Your task to perform on an android device: turn off translation in the chrome app Image 0: 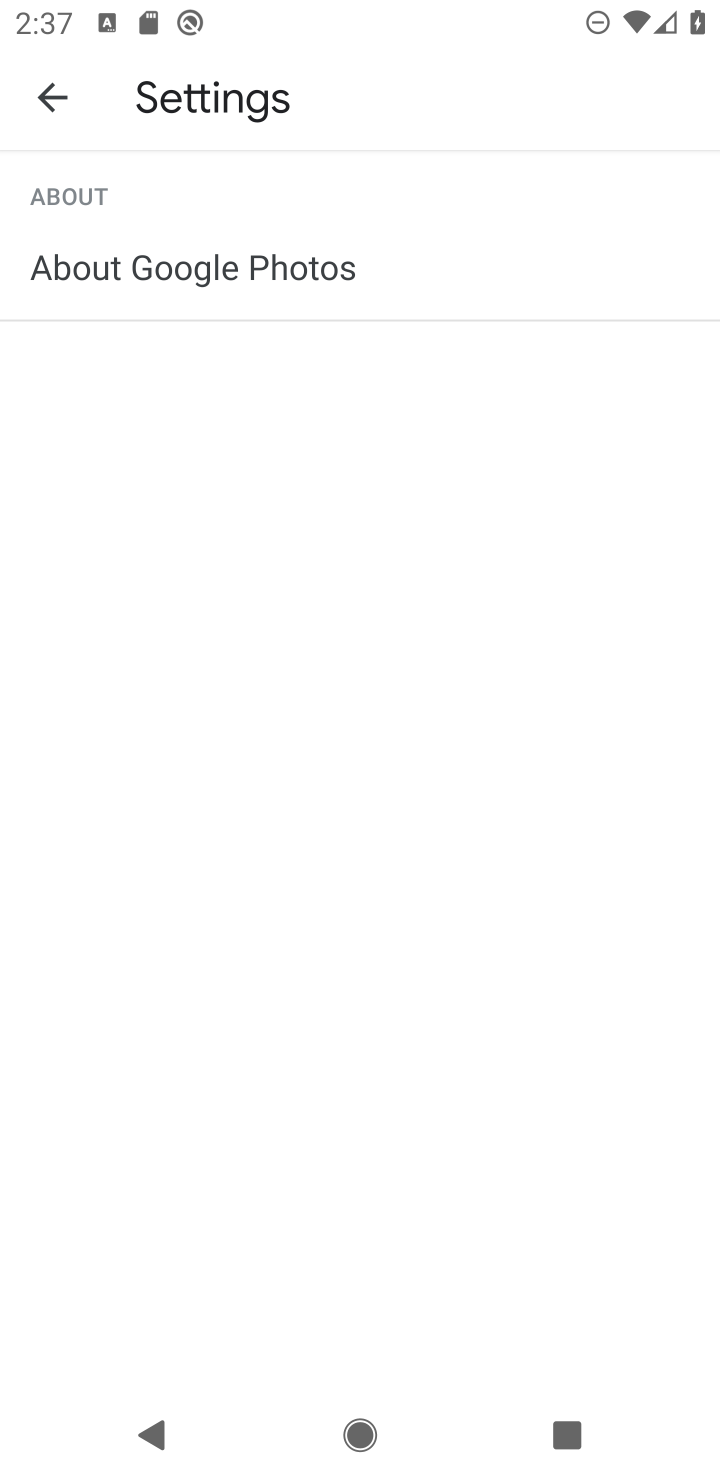
Step 0: press home button
Your task to perform on an android device: turn off translation in the chrome app Image 1: 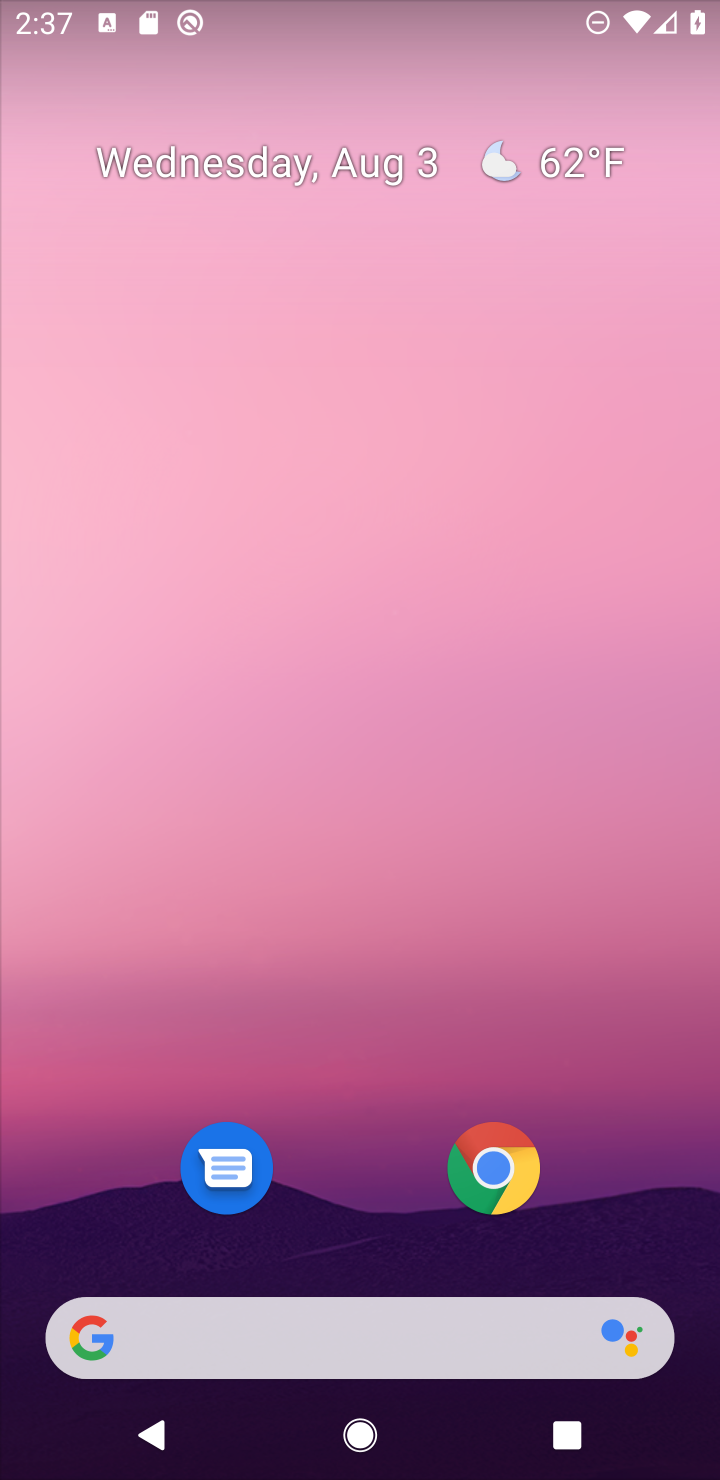
Step 1: click (487, 1170)
Your task to perform on an android device: turn off translation in the chrome app Image 2: 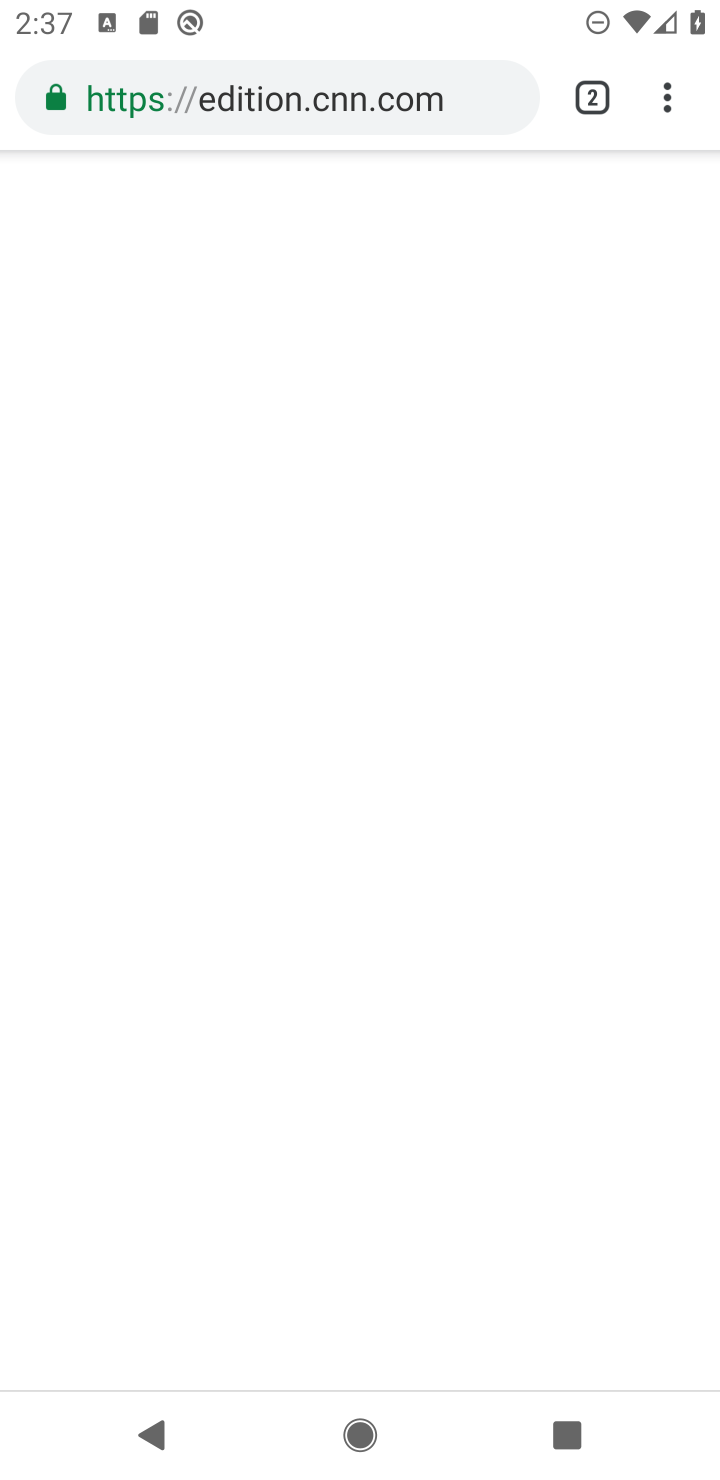
Step 2: click (656, 107)
Your task to perform on an android device: turn off translation in the chrome app Image 3: 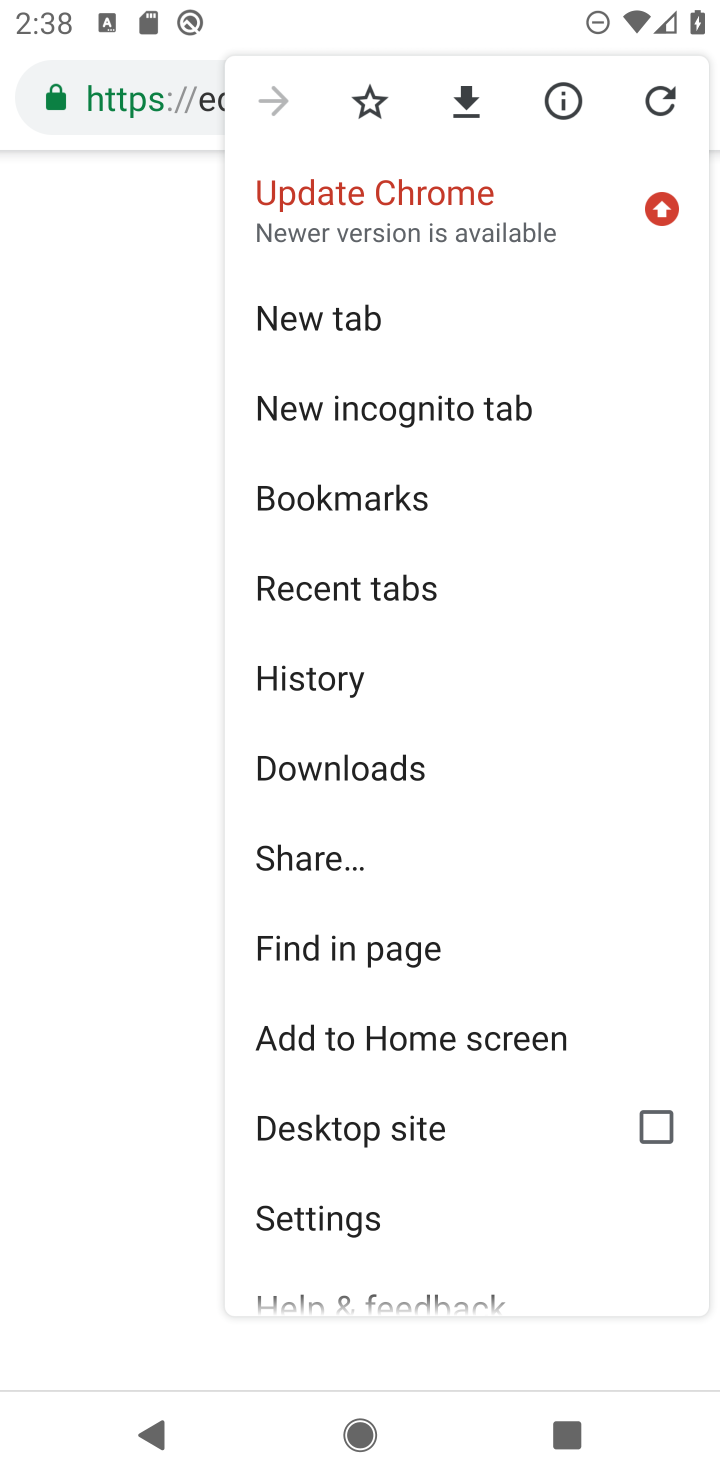
Step 3: click (353, 1208)
Your task to perform on an android device: turn off translation in the chrome app Image 4: 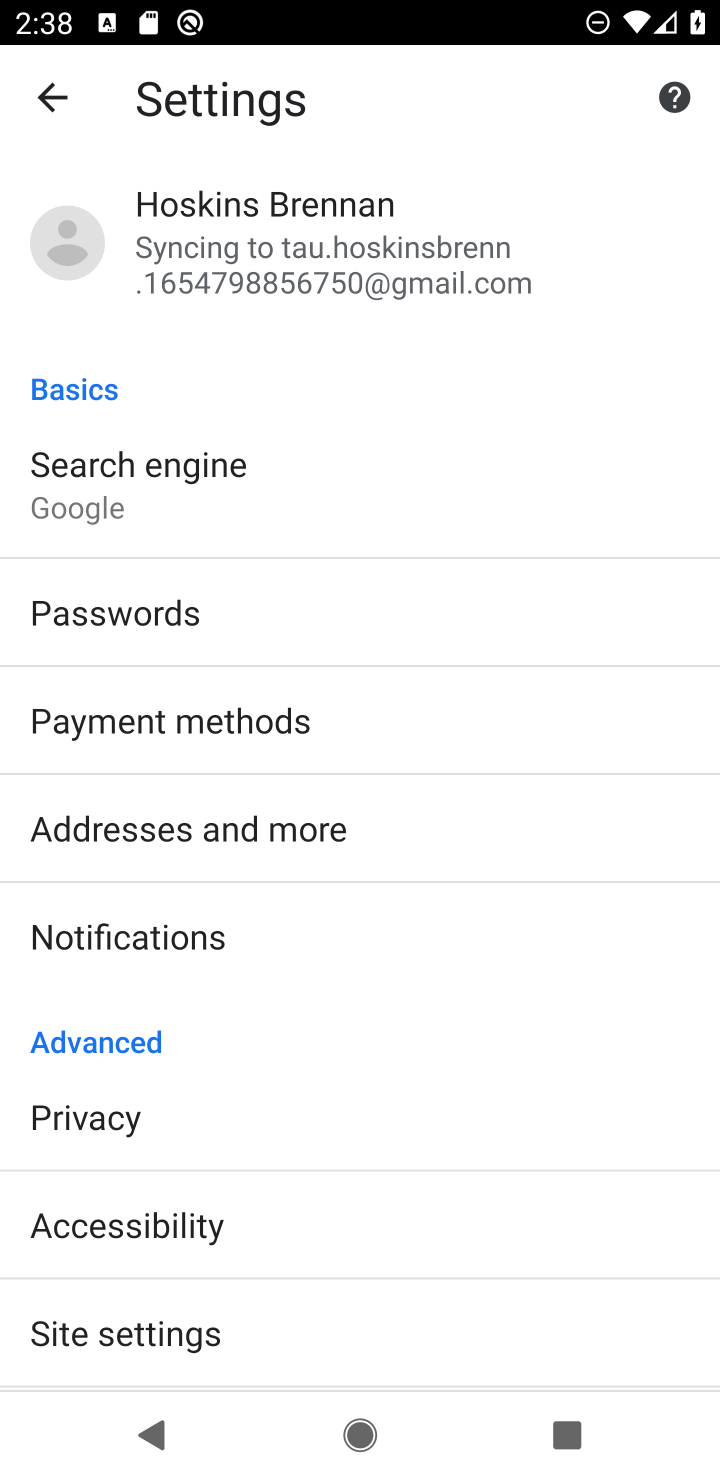
Step 4: drag from (353, 1208) to (414, 455)
Your task to perform on an android device: turn off translation in the chrome app Image 5: 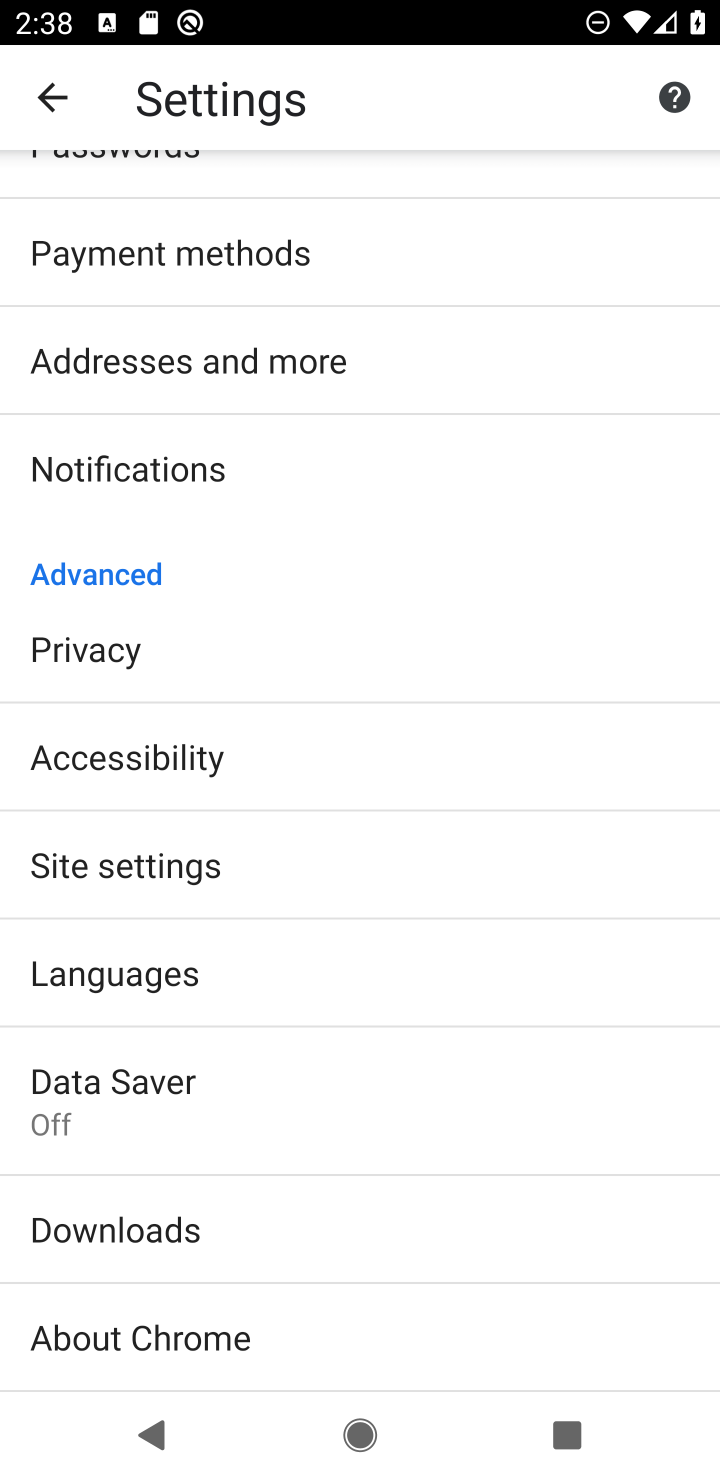
Step 5: click (85, 983)
Your task to perform on an android device: turn off translation in the chrome app Image 6: 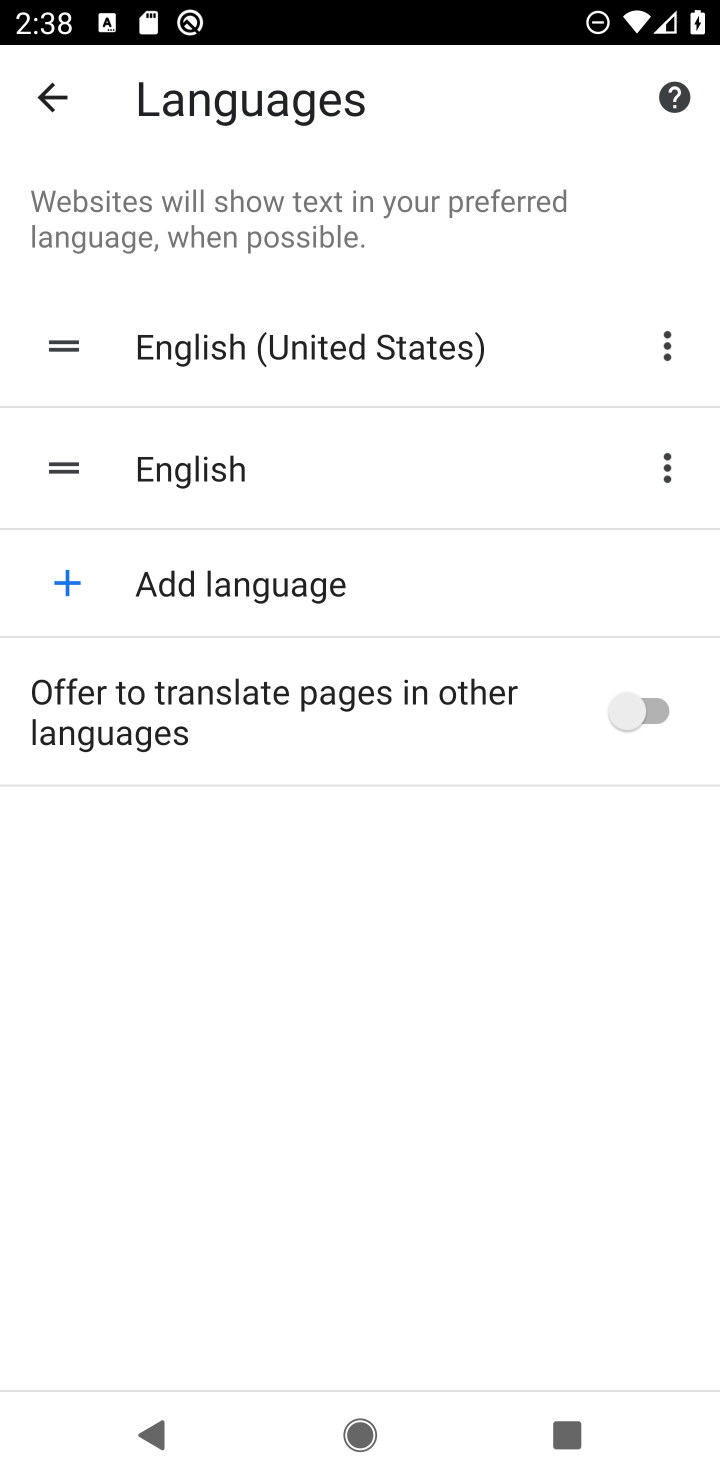
Step 6: task complete